Your task to perform on an android device: Open Youtube and go to the subscriptions tab Image 0: 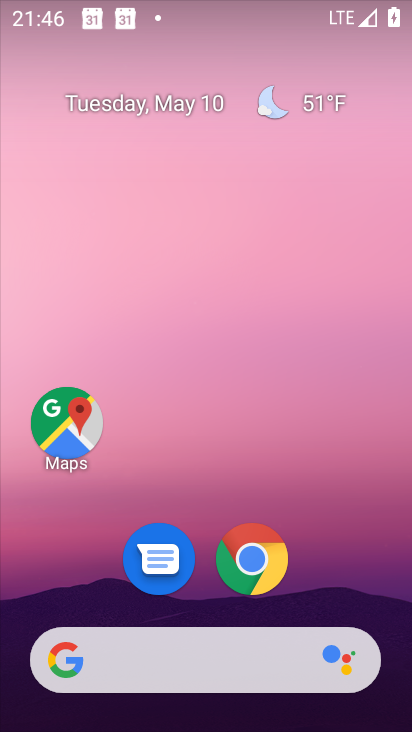
Step 0: drag from (368, 587) to (203, 47)
Your task to perform on an android device: Open Youtube and go to the subscriptions tab Image 1: 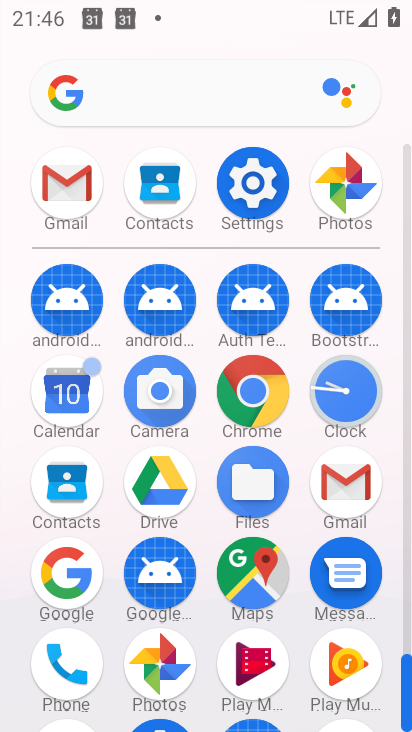
Step 1: drag from (298, 515) to (330, 198)
Your task to perform on an android device: Open Youtube and go to the subscriptions tab Image 2: 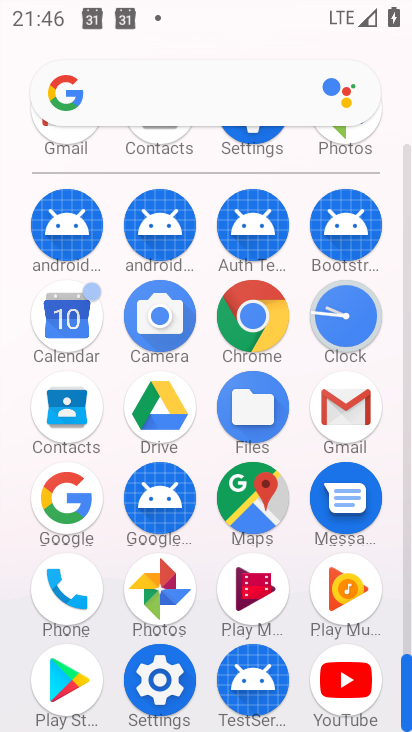
Step 2: click (346, 682)
Your task to perform on an android device: Open Youtube and go to the subscriptions tab Image 3: 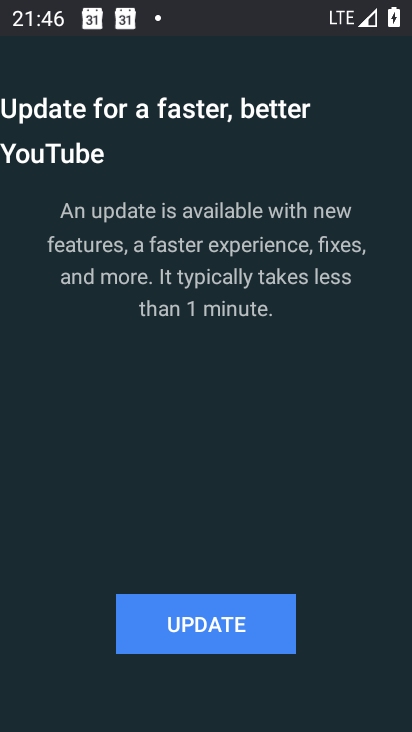
Step 3: click (248, 637)
Your task to perform on an android device: Open Youtube and go to the subscriptions tab Image 4: 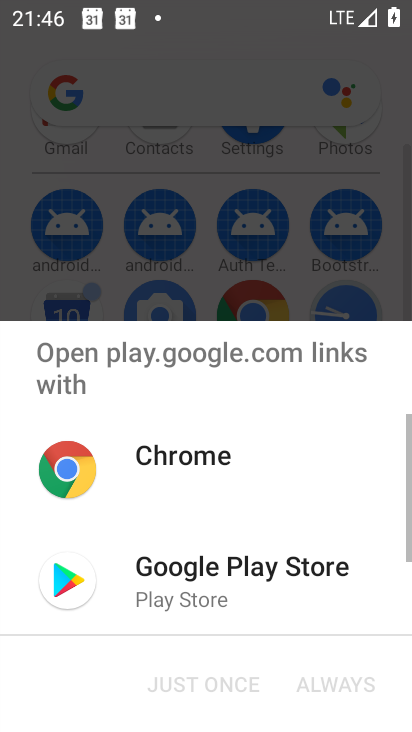
Step 4: click (233, 561)
Your task to perform on an android device: Open Youtube and go to the subscriptions tab Image 5: 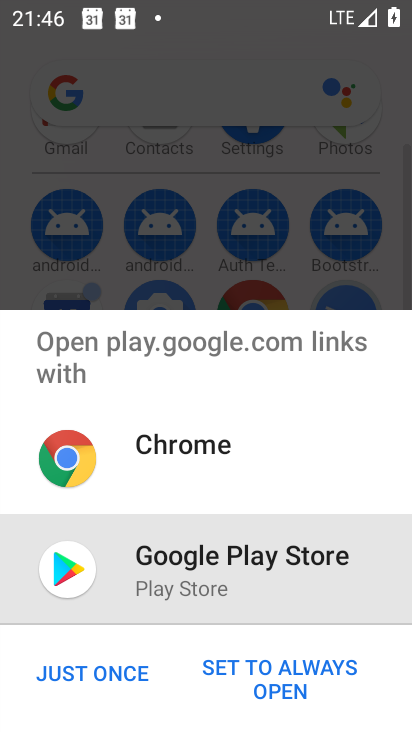
Step 5: click (127, 675)
Your task to perform on an android device: Open Youtube and go to the subscriptions tab Image 6: 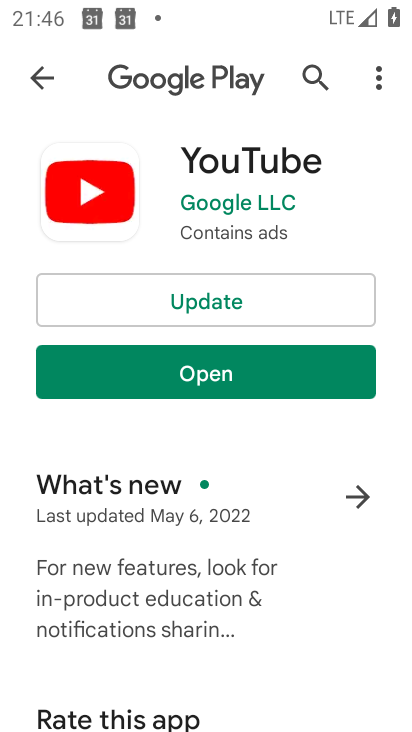
Step 6: click (232, 311)
Your task to perform on an android device: Open Youtube and go to the subscriptions tab Image 7: 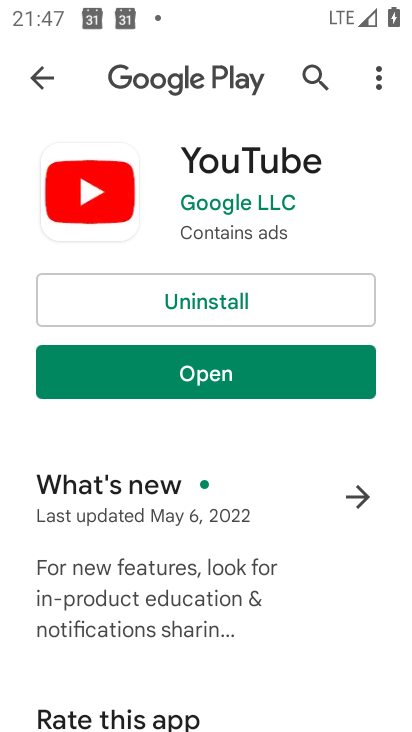
Step 7: click (225, 378)
Your task to perform on an android device: Open Youtube and go to the subscriptions tab Image 8: 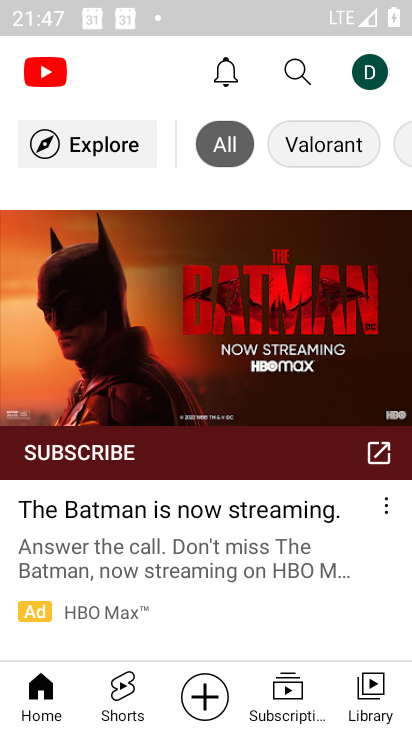
Step 8: click (285, 696)
Your task to perform on an android device: Open Youtube and go to the subscriptions tab Image 9: 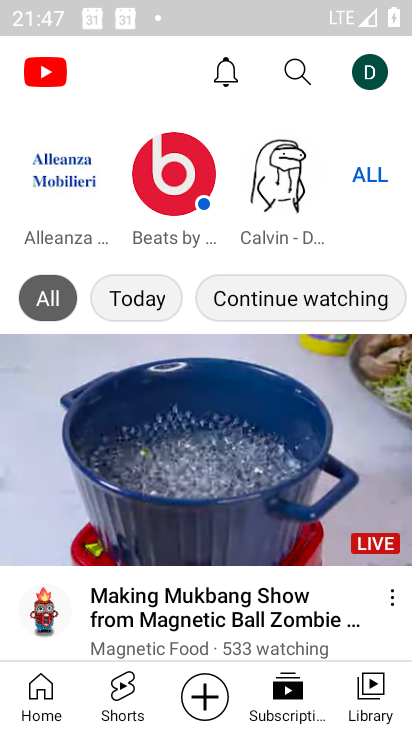
Step 9: task complete